Your task to perform on an android device: Go to ESPN.com Image 0: 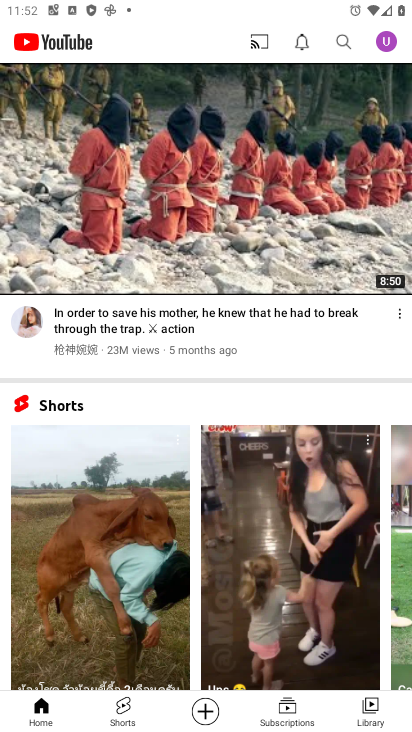
Step 0: press home button
Your task to perform on an android device: Go to ESPN.com Image 1: 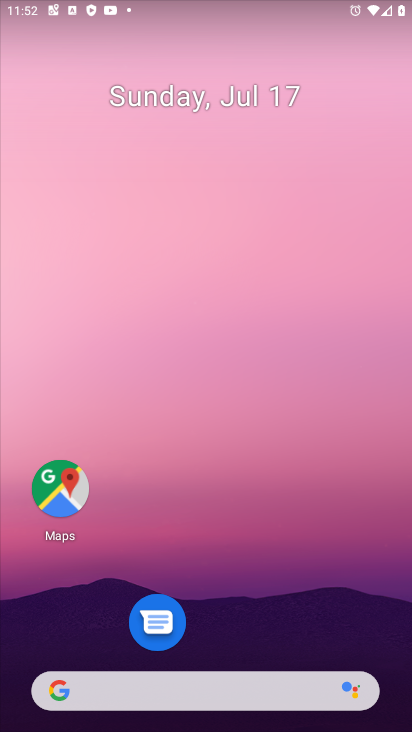
Step 1: click (194, 687)
Your task to perform on an android device: Go to ESPN.com Image 2: 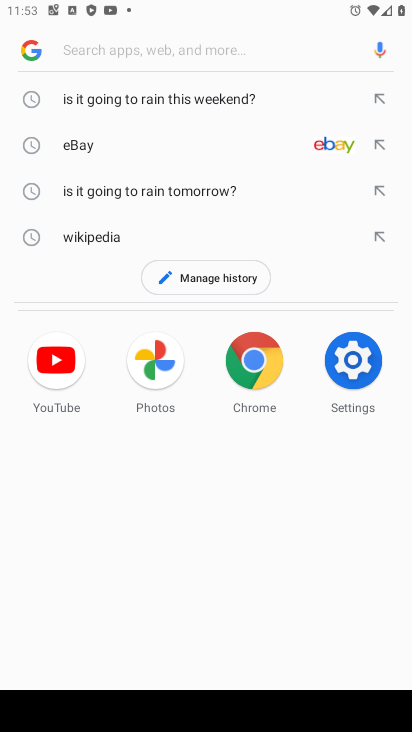
Step 2: type "esn.com"
Your task to perform on an android device: Go to ESPN.com Image 3: 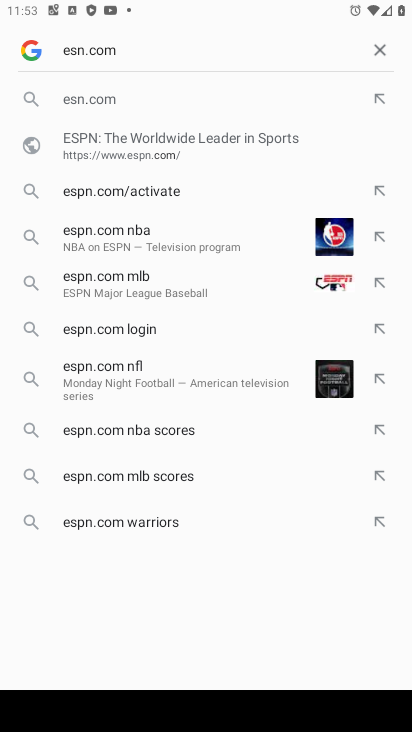
Step 3: click (210, 138)
Your task to perform on an android device: Go to ESPN.com Image 4: 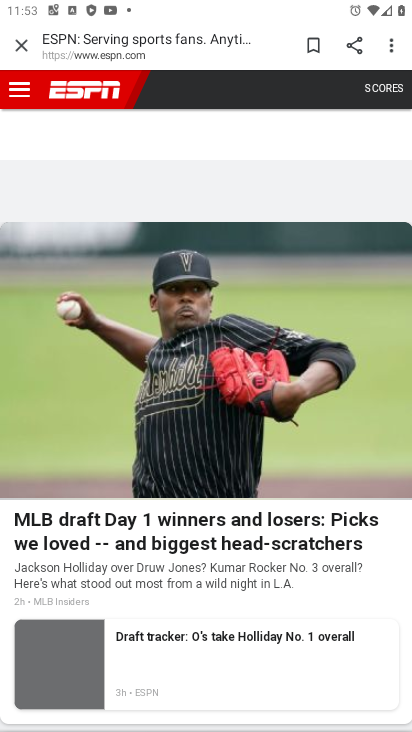
Step 4: task complete